Your task to perform on an android device: Is it going to rain tomorrow? Image 0: 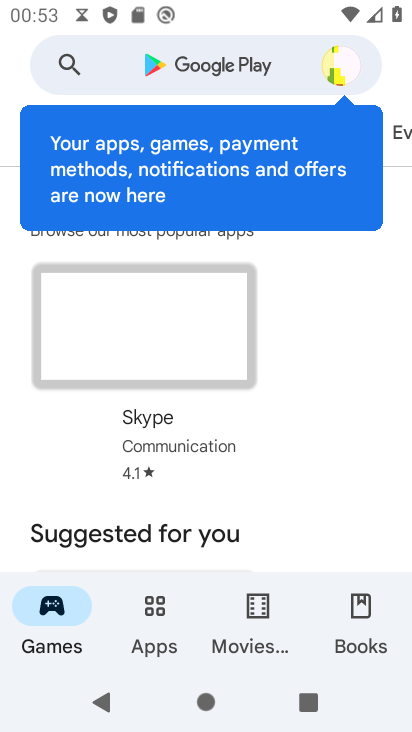
Step 0: press home button
Your task to perform on an android device: Is it going to rain tomorrow? Image 1: 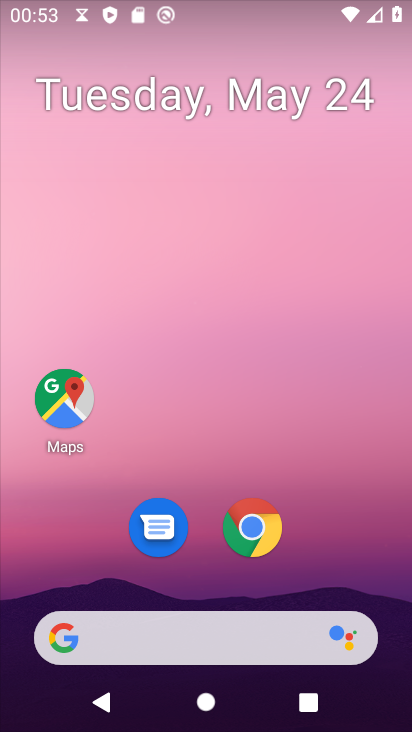
Step 1: click (71, 645)
Your task to perform on an android device: Is it going to rain tomorrow? Image 2: 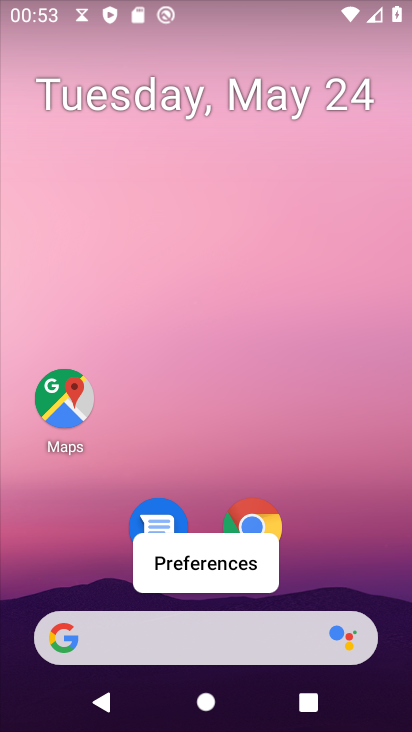
Step 2: click (72, 641)
Your task to perform on an android device: Is it going to rain tomorrow? Image 3: 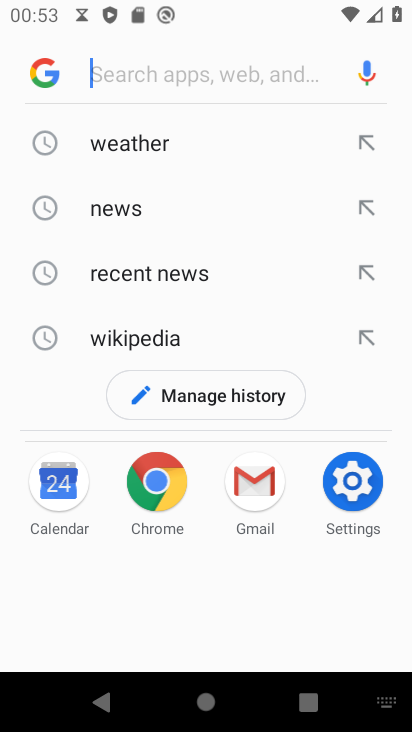
Step 3: click (148, 146)
Your task to perform on an android device: Is it going to rain tomorrow? Image 4: 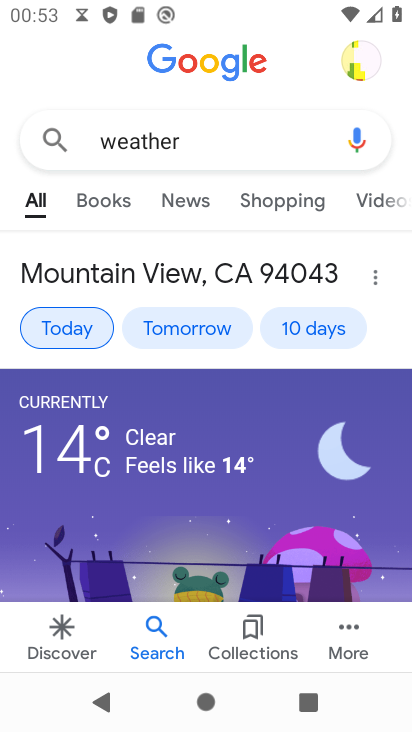
Step 4: click (196, 335)
Your task to perform on an android device: Is it going to rain tomorrow? Image 5: 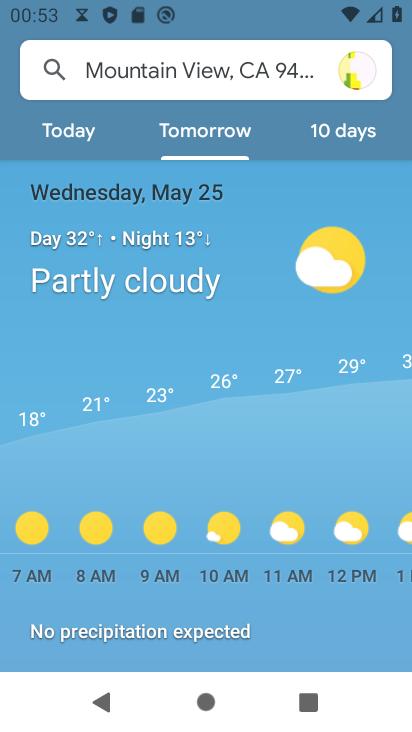
Step 5: task complete